Your task to perform on an android device: Open Google Image 0: 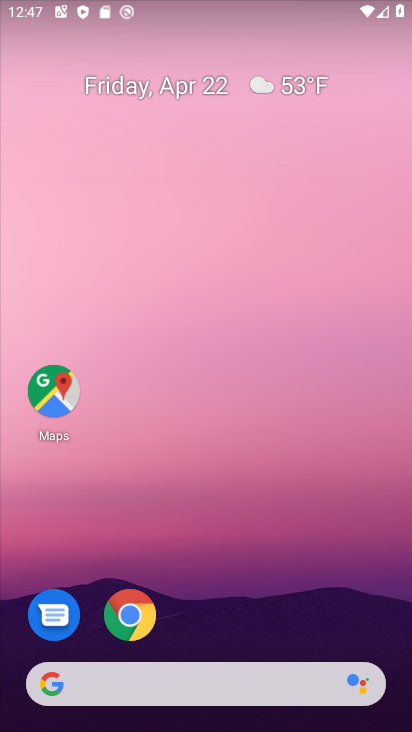
Step 0: drag from (338, 600) to (338, 9)
Your task to perform on an android device: Open Google Image 1: 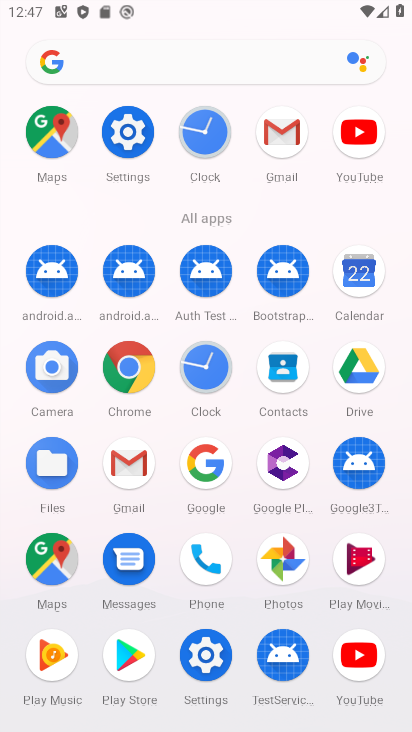
Step 1: click (202, 469)
Your task to perform on an android device: Open Google Image 2: 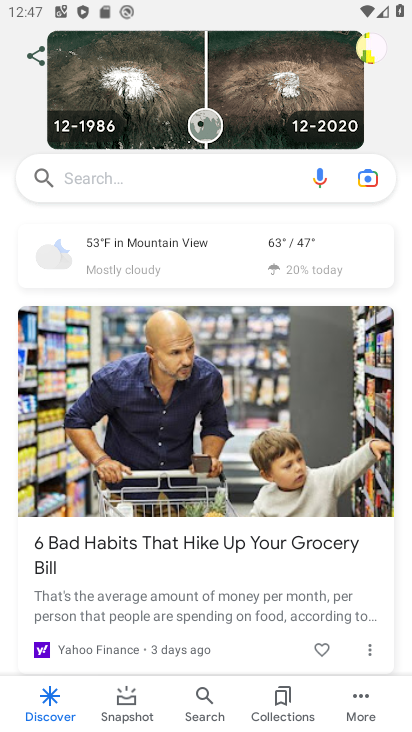
Step 2: task complete